Your task to perform on an android device: star an email in the gmail app Image 0: 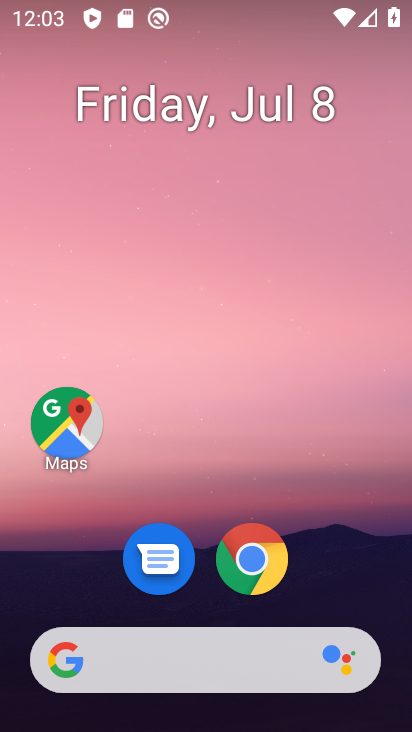
Step 0: drag from (209, 638) to (162, 37)
Your task to perform on an android device: star an email in the gmail app Image 1: 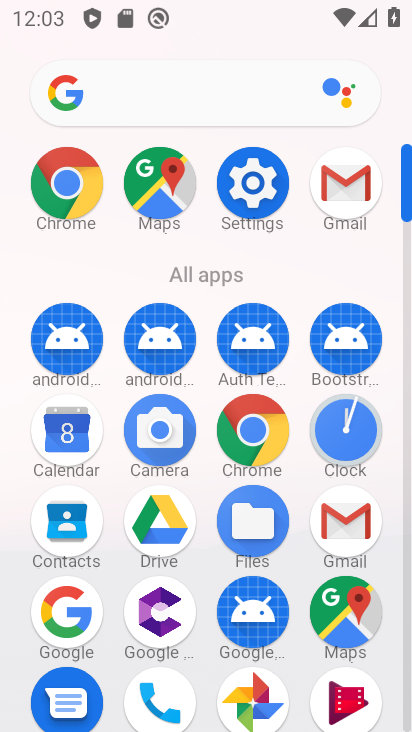
Step 1: click (351, 534)
Your task to perform on an android device: star an email in the gmail app Image 2: 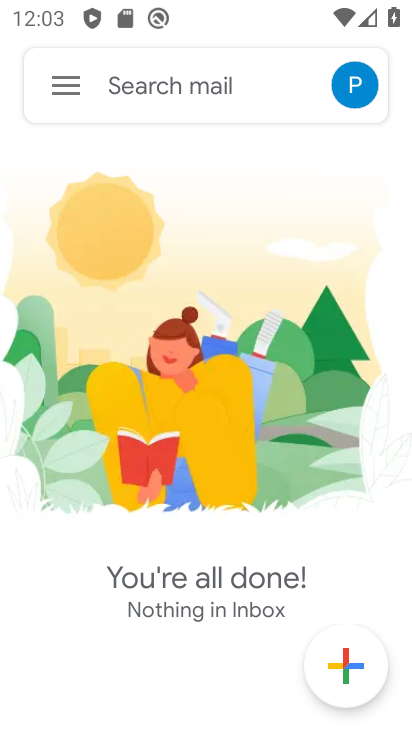
Step 2: click (62, 90)
Your task to perform on an android device: star an email in the gmail app Image 3: 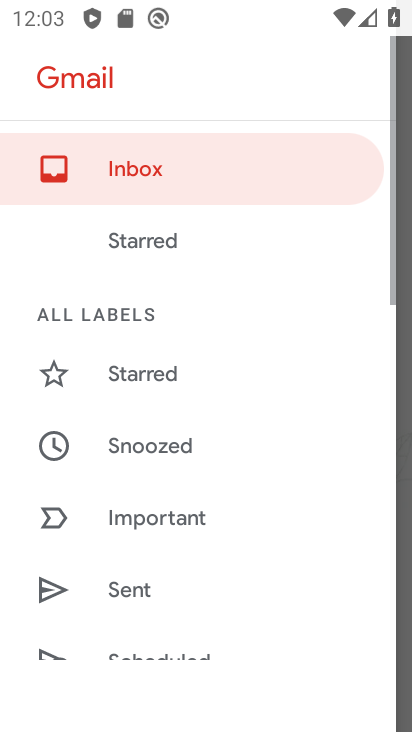
Step 3: drag from (148, 481) to (194, 8)
Your task to perform on an android device: star an email in the gmail app Image 4: 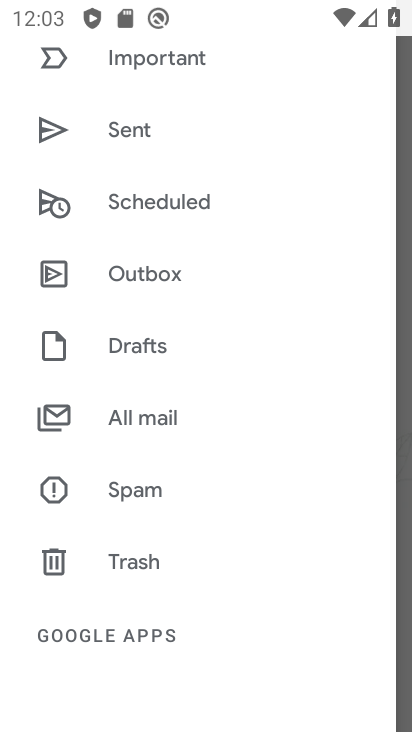
Step 4: click (119, 404)
Your task to perform on an android device: star an email in the gmail app Image 5: 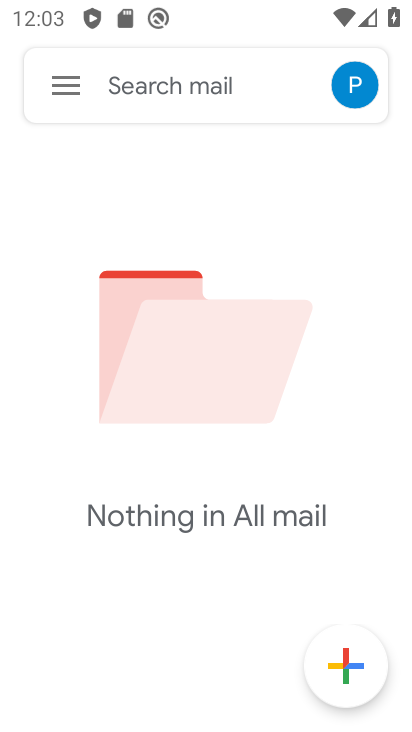
Step 5: task complete